Your task to perform on an android device: Open Youtube and go to "Your channel" Image 0: 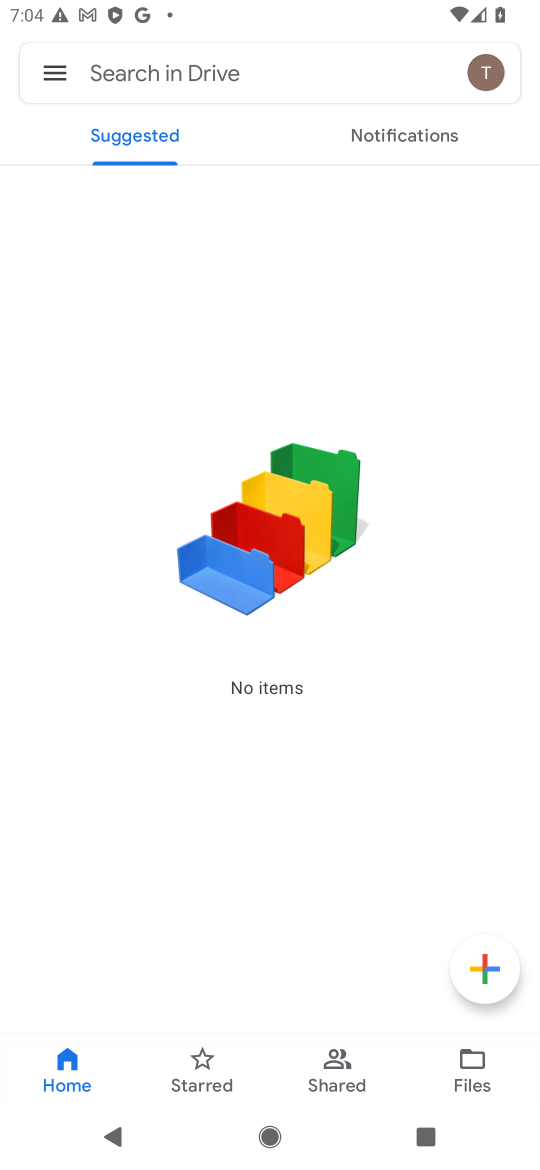
Step 0: press home button
Your task to perform on an android device: Open Youtube and go to "Your channel" Image 1: 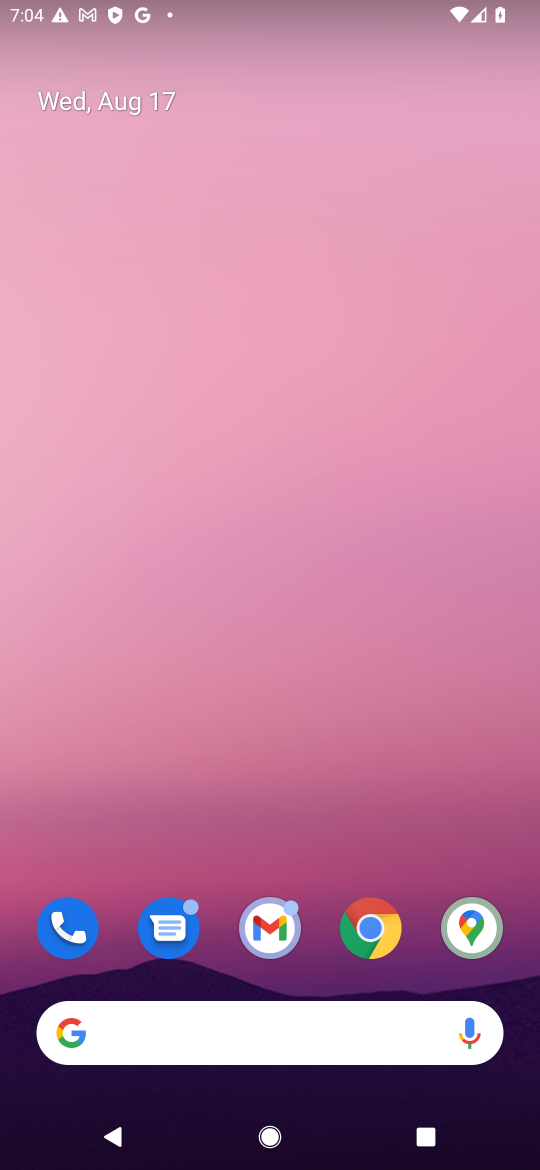
Step 1: drag from (253, 1006) to (81, 735)
Your task to perform on an android device: Open Youtube and go to "Your channel" Image 2: 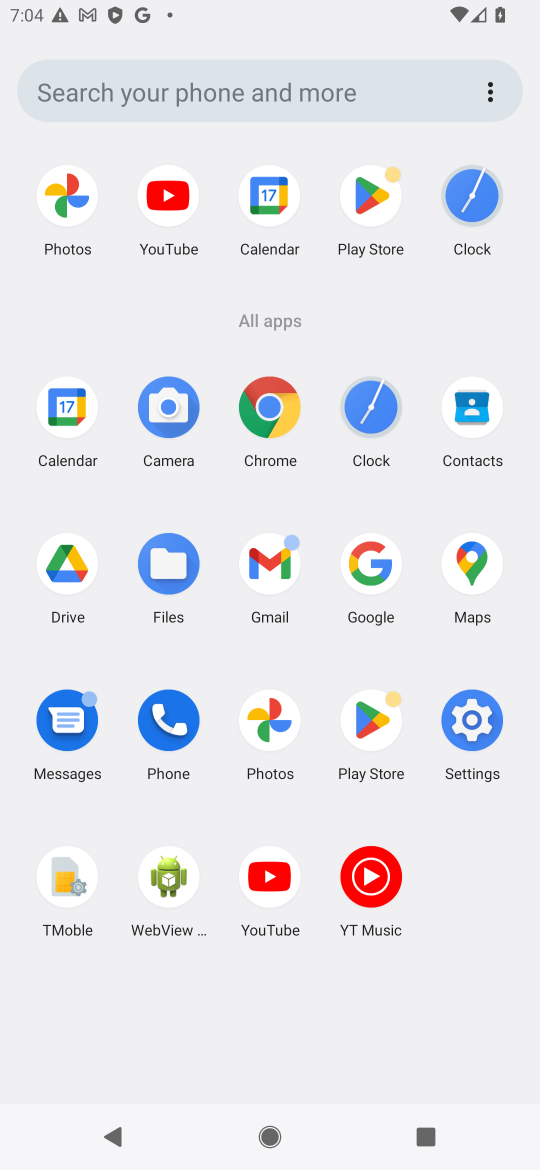
Step 2: click (264, 884)
Your task to perform on an android device: Open Youtube and go to "Your channel" Image 3: 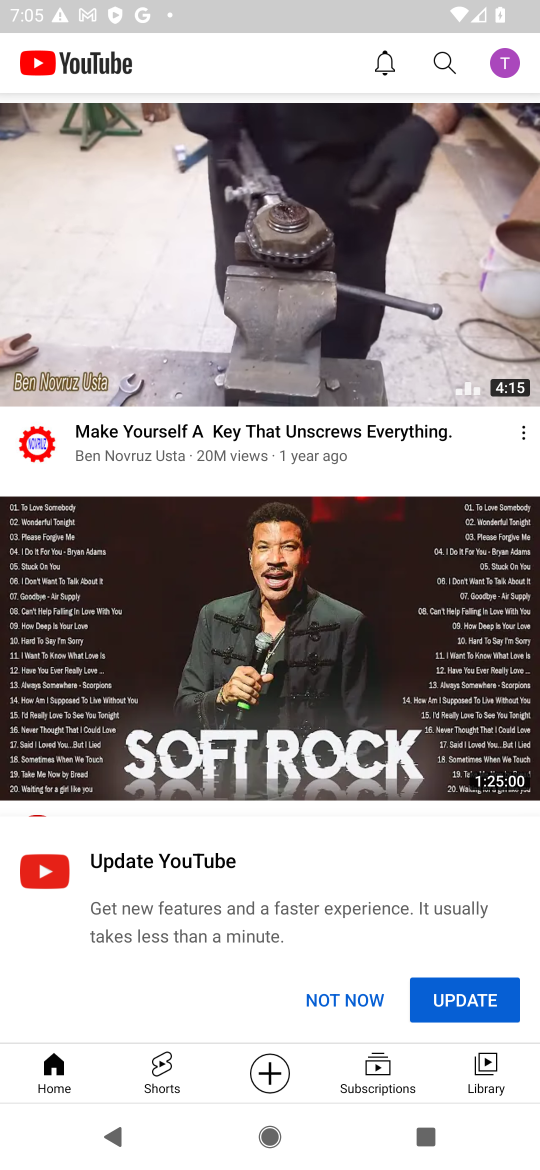
Step 3: click (514, 79)
Your task to perform on an android device: Open Youtube and go to "Your channel" Image 4: 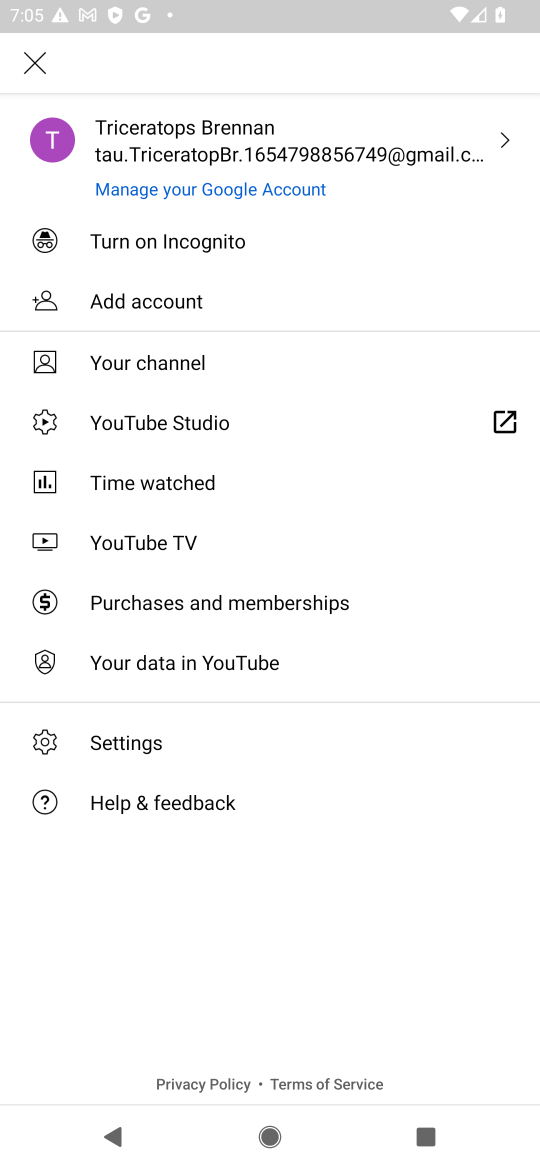
Step 4: click (152, 368)
Your task to perform on an android device: Open Youtube and go to "Your channel" Image 5: 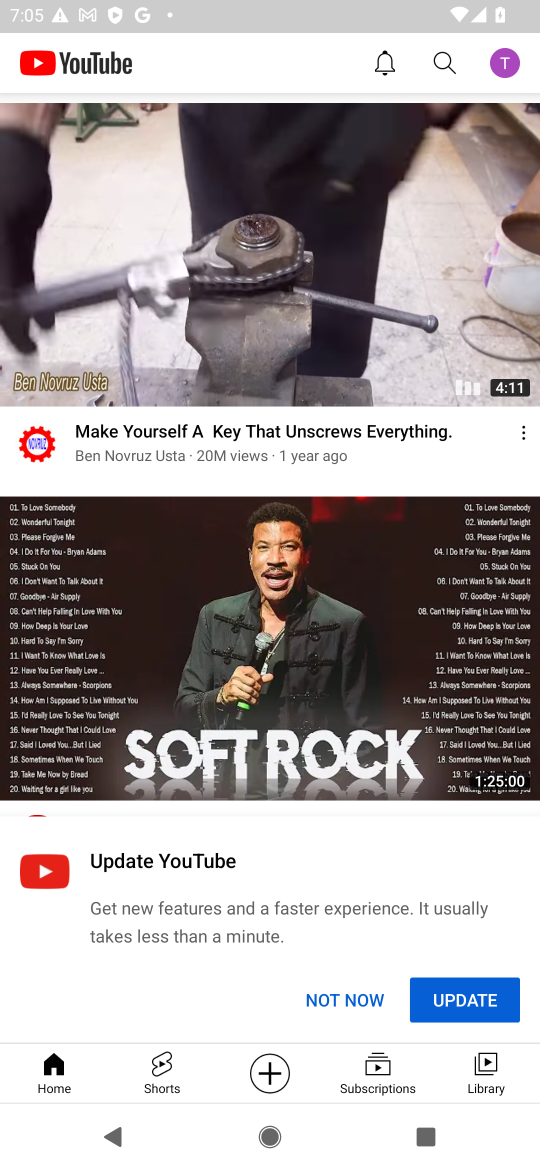
Step 5: click (498, 58)
Your task to perform on an android device: Open Youtube and go to "Your channel" Image 6: 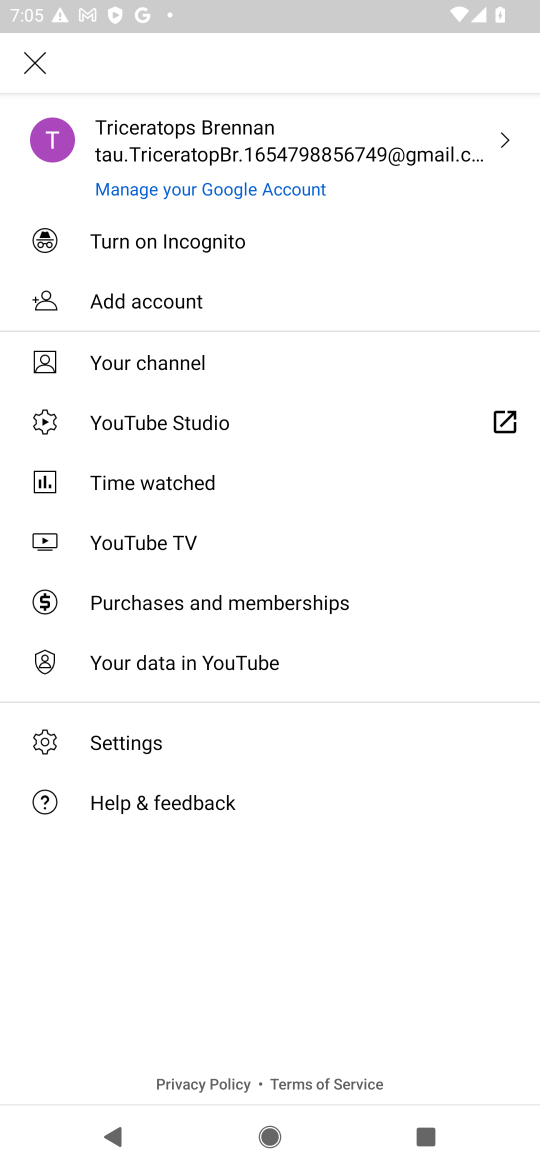
Step 6: click (150, 358)
Your task to perform on an android device: Open Youtube and go to "Your channel" Image 7: 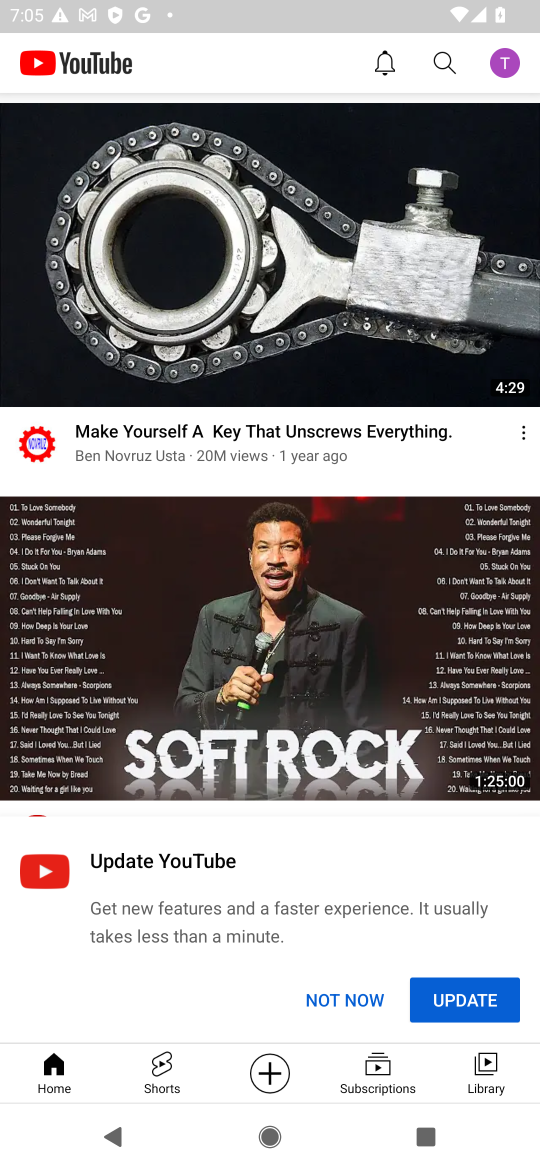
Step 7: task complete